Your task to perform on an android device: Open battery settings Image 0: 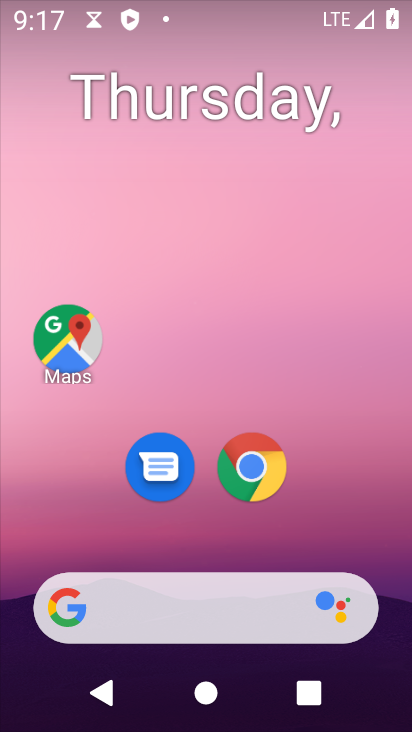
Step 0: drag from (331, 544) to (332, 27)
Your task to perform on an android device: Open battery settings Image 1: 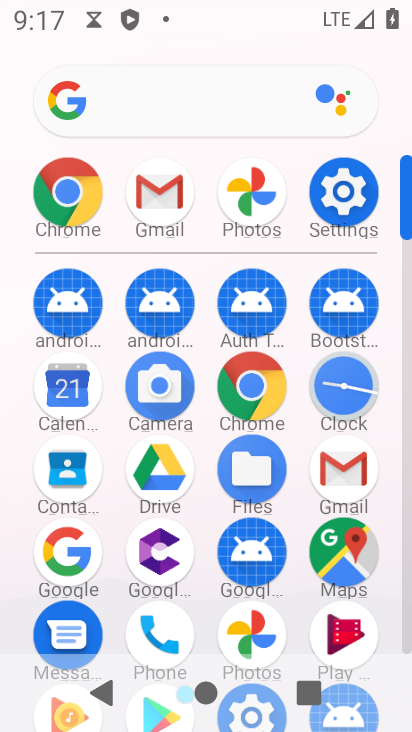
Step 1: click (328, 199)
Your task to perform on an android device: Open battery settings Image 2: 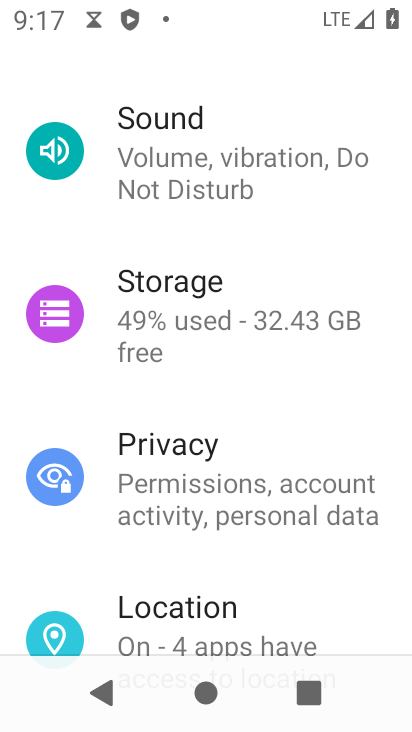
Step 2: drag from (197, 374) to (217, 451)
Your task to perform on an android device: Open battery settings Image 3: 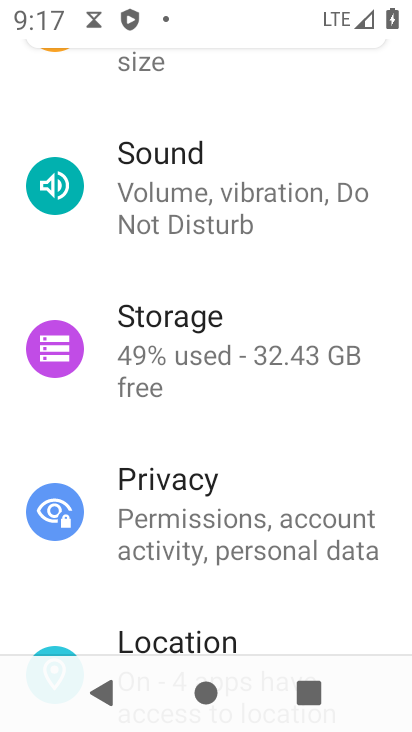
Step 3: drag from (205, 382) to (221, 467)
Your task to perform on an android device: Open battery settings Image 4: 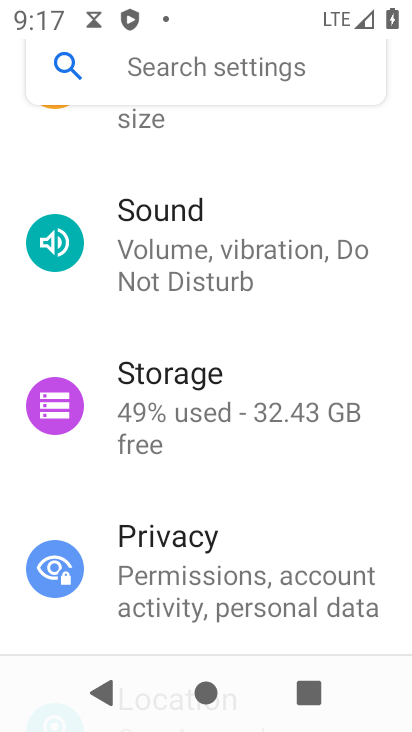
Step 4: drag from (194, 366) to (198, 473)
Your task to perform on an android device: Open battery settings Image 5: 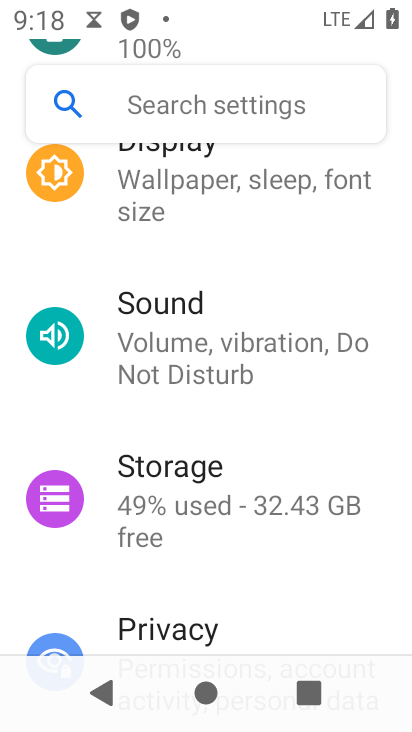
Step 5: drag from (172, 394) to (165, 480)
Your task to perform on an android device: Open battery settings Image 6: 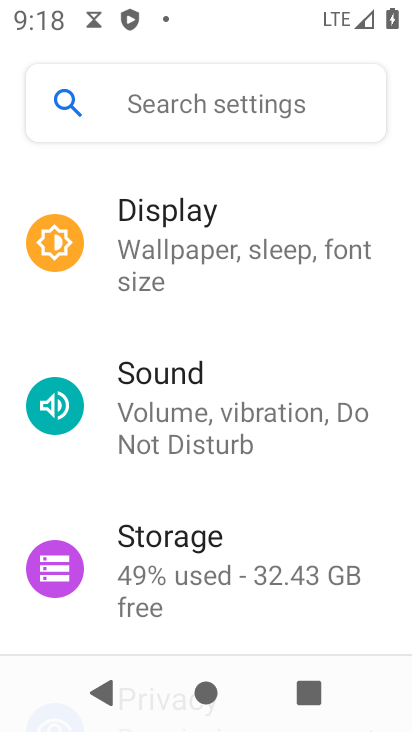
Step 6: drag from (122, 401) to (113, 507)
Your task to perform on an android device: Open battery settings Image 7: 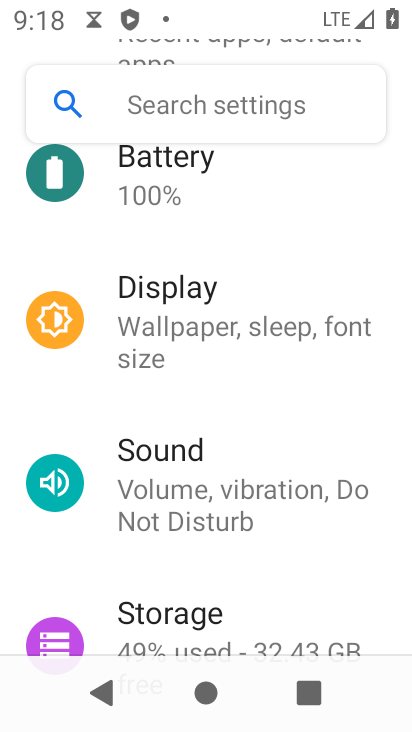
Step 7: drag from (96, 384) to (96, 494)
Your task to perform on an android device: Open battery settings Image 8: 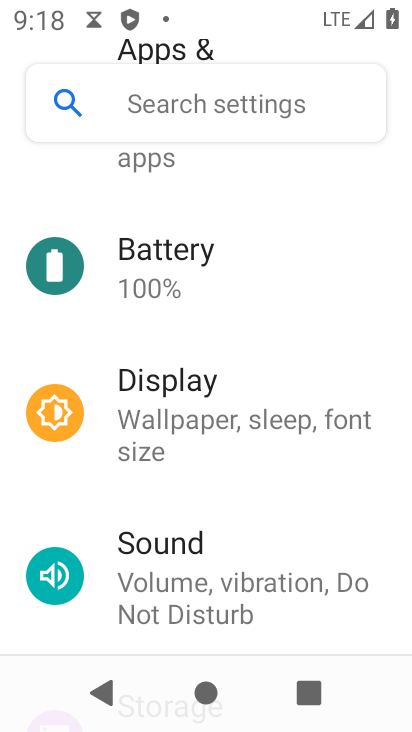
Step 8: click (136, 289)
Your task to perform on an android device: Open battery settings Image 9: 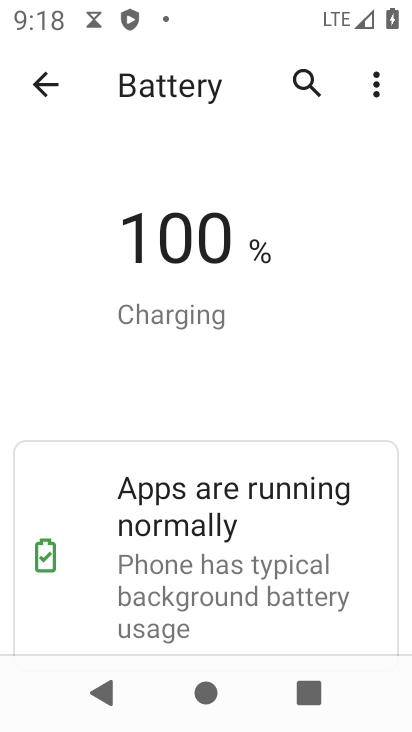
Step 9: task complete